Your task to perform on an android device: allow notifications from all sites in the chrome app Image 0: 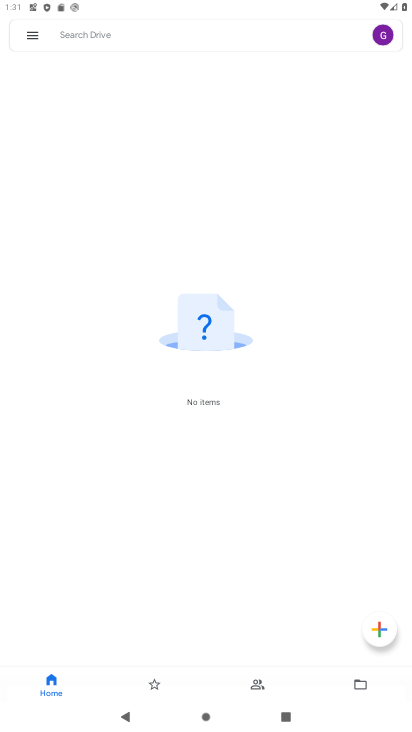
Step 0: press home button
Your task to perform on an android device: allow notifications from all sites in the chrome app Image 1: 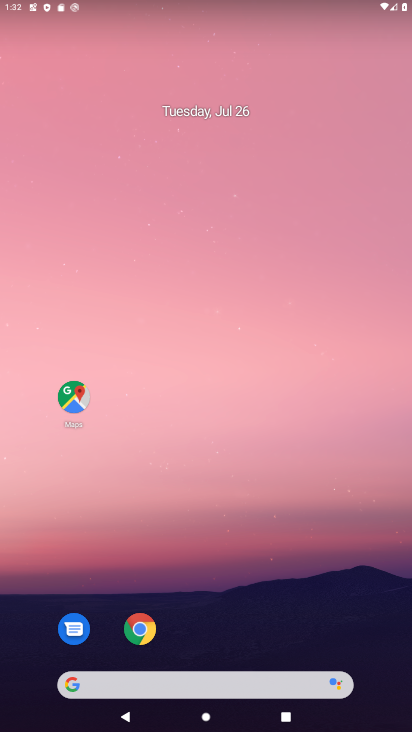
Step 1: click (218, 575)
Your task to perform on an android device: allow notifications from all sites in the chrome app Image 2: 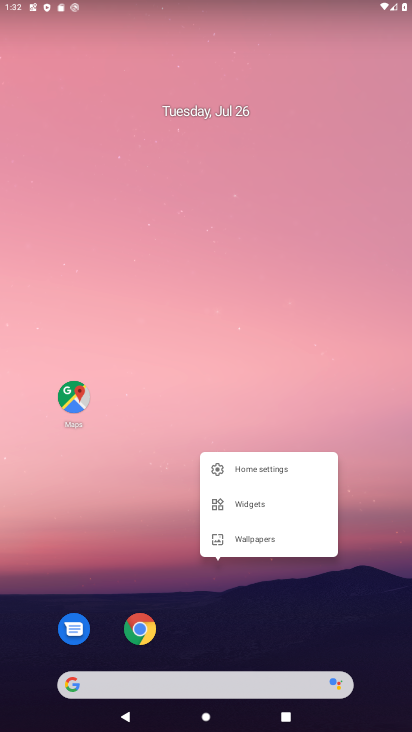
Step 2: click (143, 634)
Your task to perform on an android device: allow notifications from all sites in the chrome app Image 3: 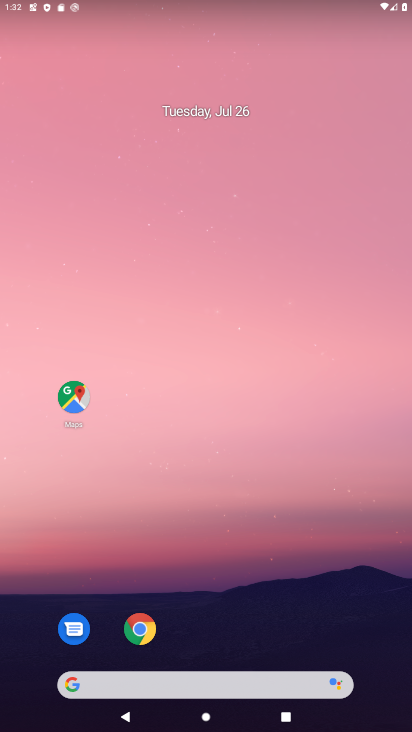
Step 3: click (143, 634)
Your task to perform on an android device: allow notifications from all sites in the chrome app Image 4: 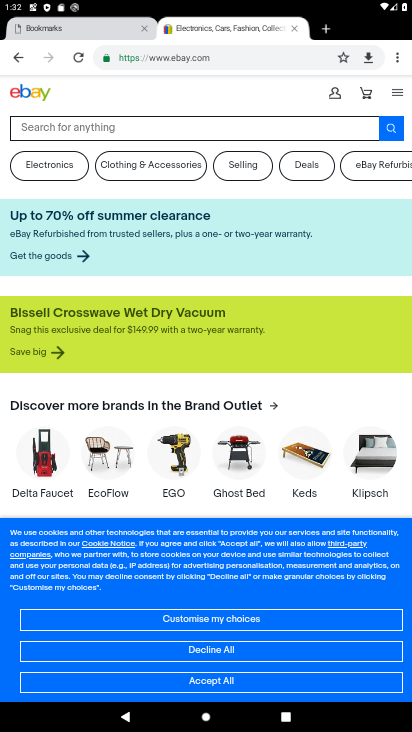
Step 4: click (399, 54)
Your task to perform on an android device: allow notifications from all sites in the chrome app Image 5: 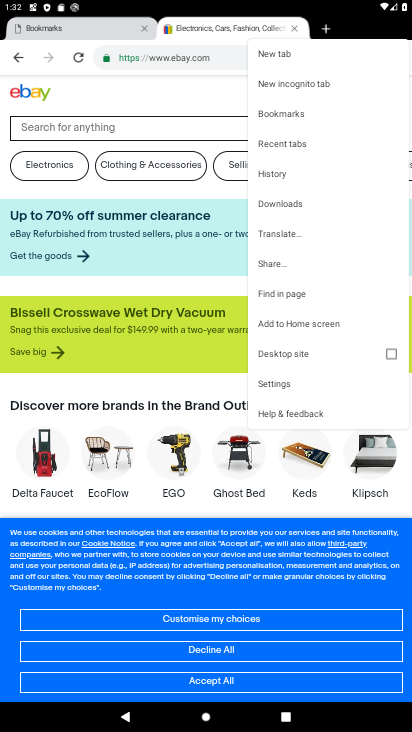
Step 5: click (282, 383)
Your task to perform on an android device: allow notifications from all sites in the chrome app Image 6: 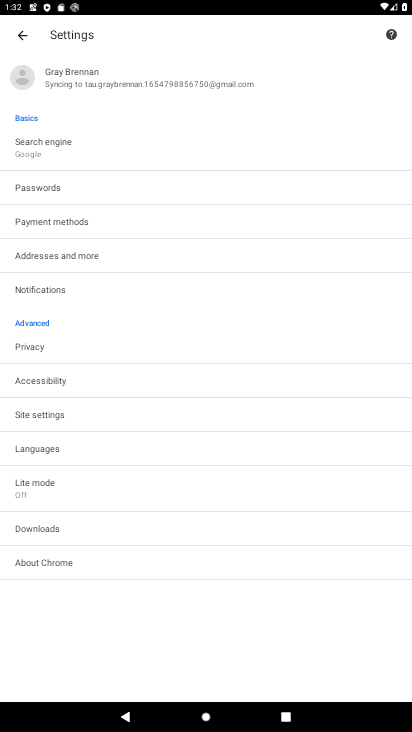
Step 6: task complete